Your task to perform on an android device: turn off notifications in google photos Image 0: 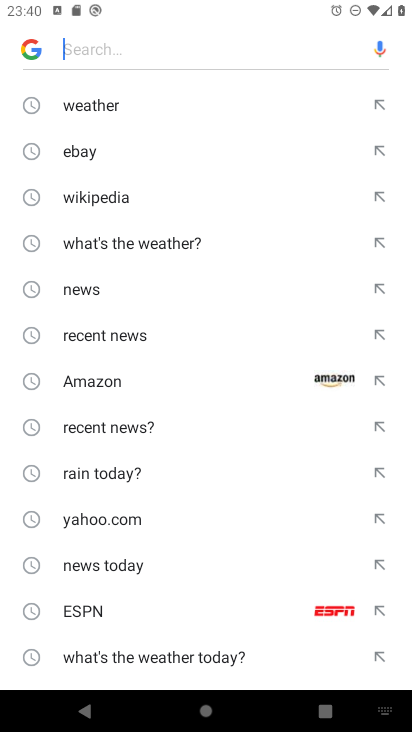
Step 0: press home button
Your task to perform on an android device: turn off notifications in google photos Image 1: 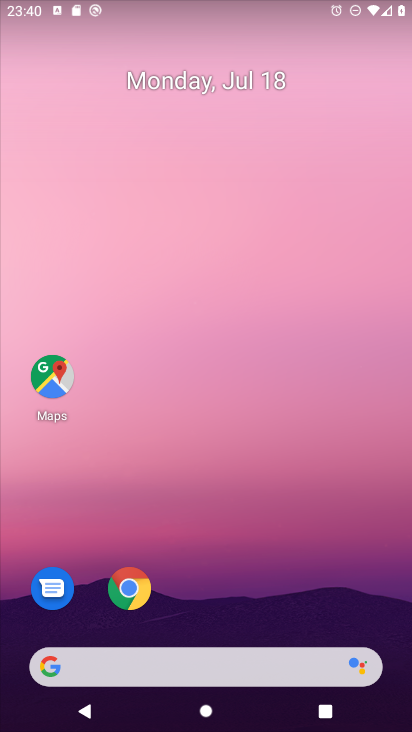
Step 1: drag from (377, 619) to (352, 92)
Your task to perform on an android device: turn off notifications in google photos Image 2: 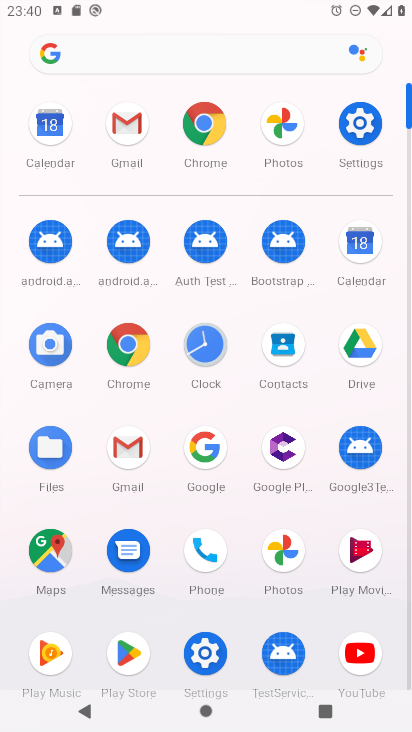
Step 2: click (285, 552)
Your task to perform on an android device: turn off notifications in google photos Image 3: 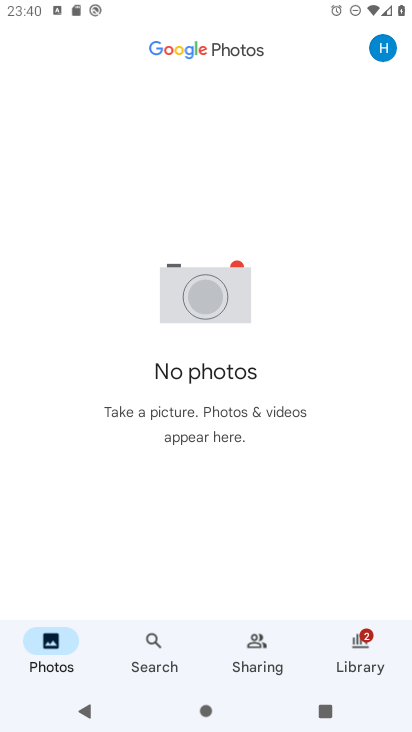
Step 3: click (381, 46)
Your task to perform on an android device: turn off notifications in google photos Image 4: 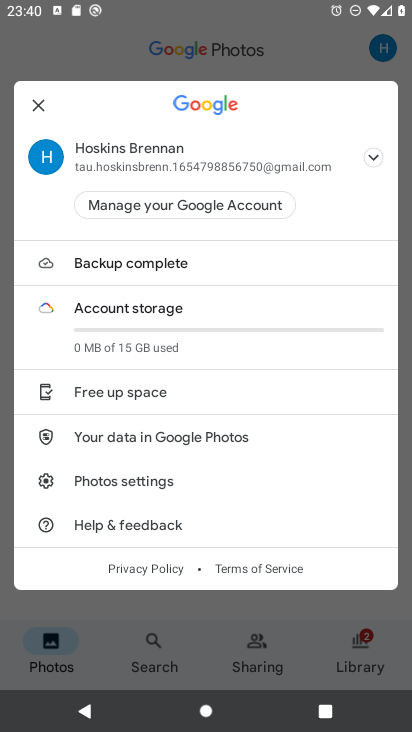
Step 4: click (111, 485)
Your task to perform on an android device: turn off notifications in google photos Image 5: 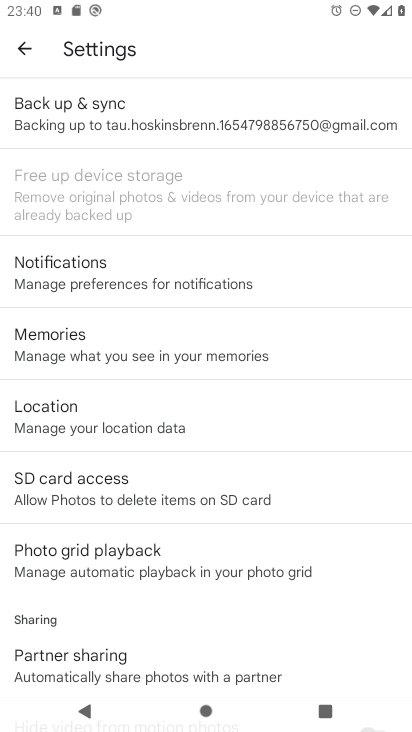
Step 5: click (46, 266)
Your task to perform on an android device: turn off notifications in google photos Image 6: 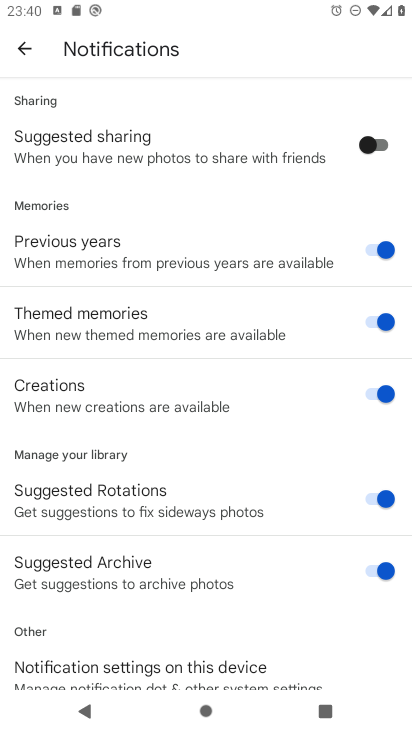
Step 6: drag from (231, 645) to (223, 122)
Your task to perform on an android device: turn off notifications in google photos Image 7: 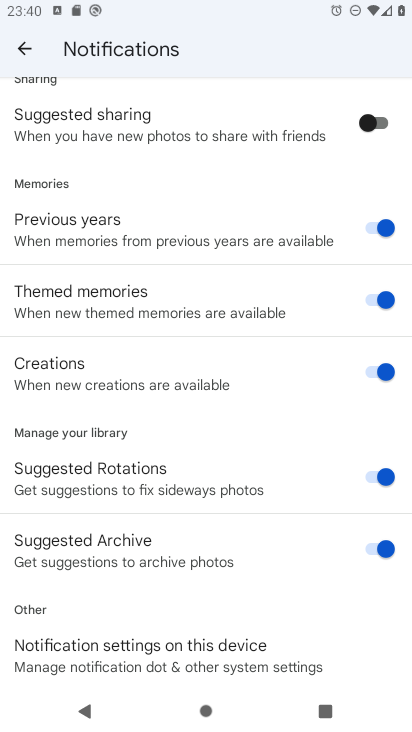
Step 7: click (94, 638)
Your task to perform on an android device: turn off notifications in google photos Image 8: 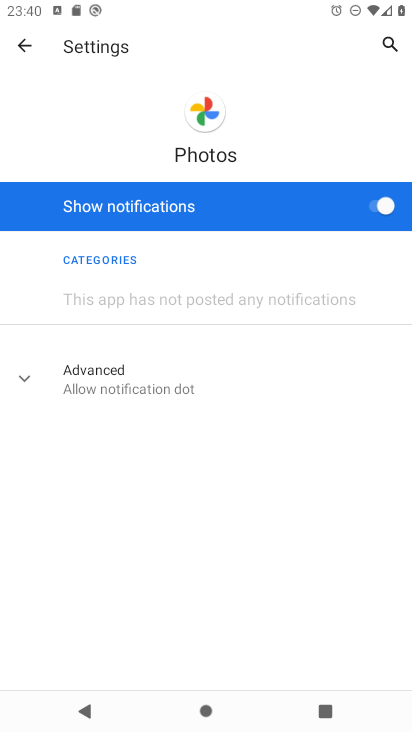
Step 8: click (374, 206)
Your task to perform on an android device: turn off notifications in google photos Image 9: 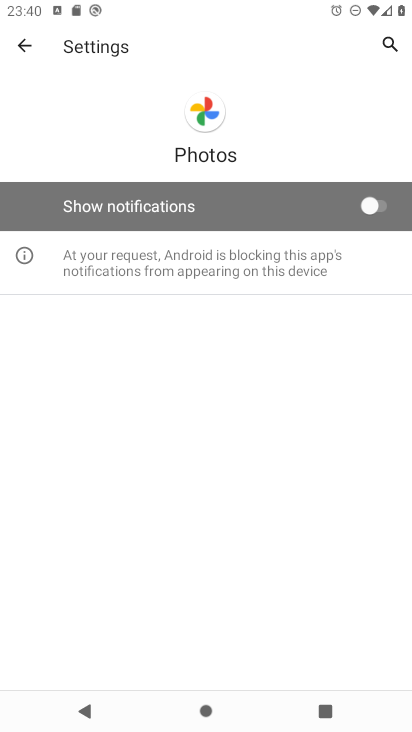
Step 9: task complete